Your task to perform on an android device: change notifications settings Image 0: 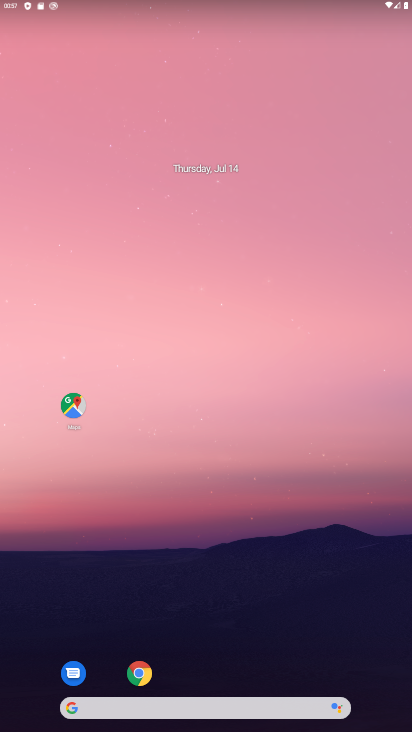
Step 0: drag from (300, 652) to (245, 123)
Your task to perform on an android device: change notifications settings Image 1: 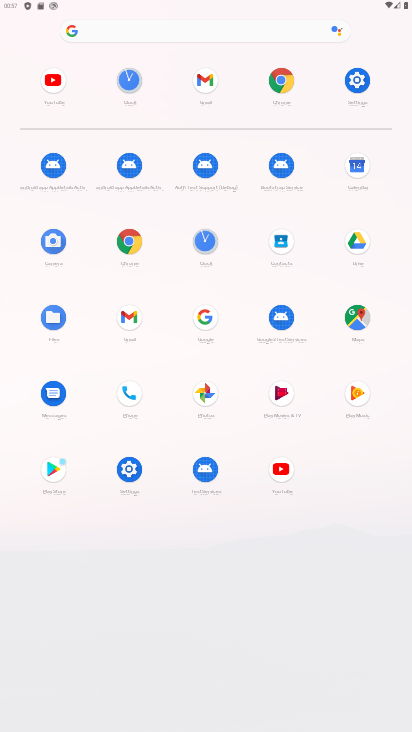
Step 1: click (345, 92)
Your task to perform on an android device: change notifications settings Image 2: 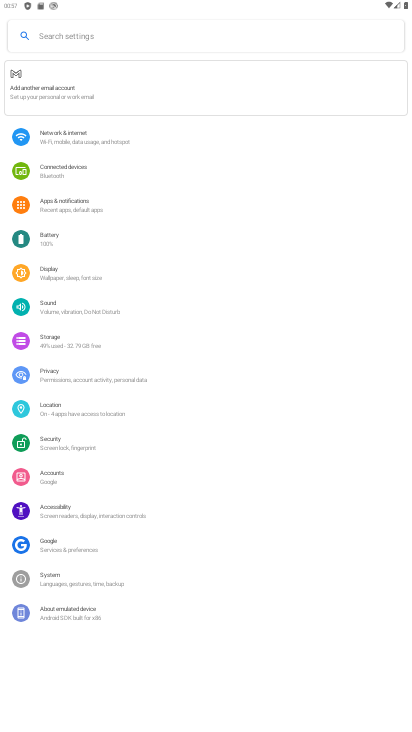
Step 2: click (96, 214)
Your task to perform on an android device: change notifications settings Image 3: 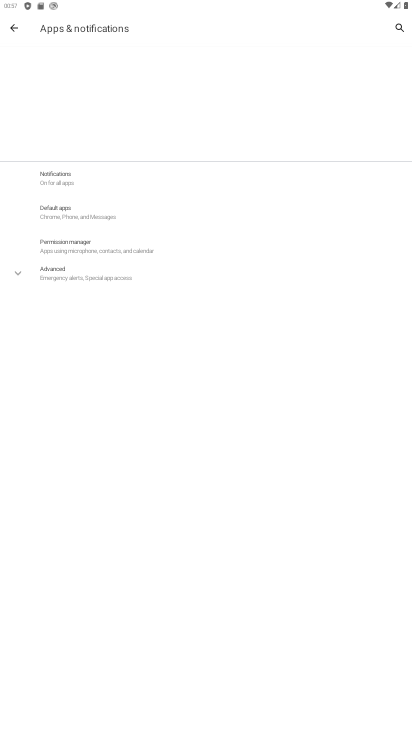
Step 3: task complete